Your task to perform on an android device: Search for vegetarian restaurants on Maps Image 0: 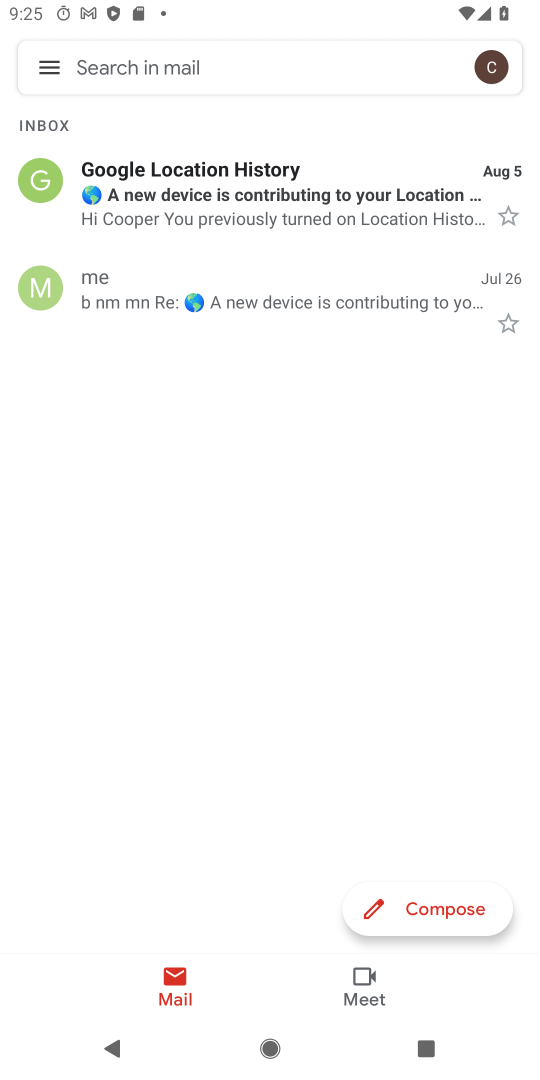
Step 0: press home button
Your task to perform on an android device: Search for vegetarian restaurants on Maps Image 1: 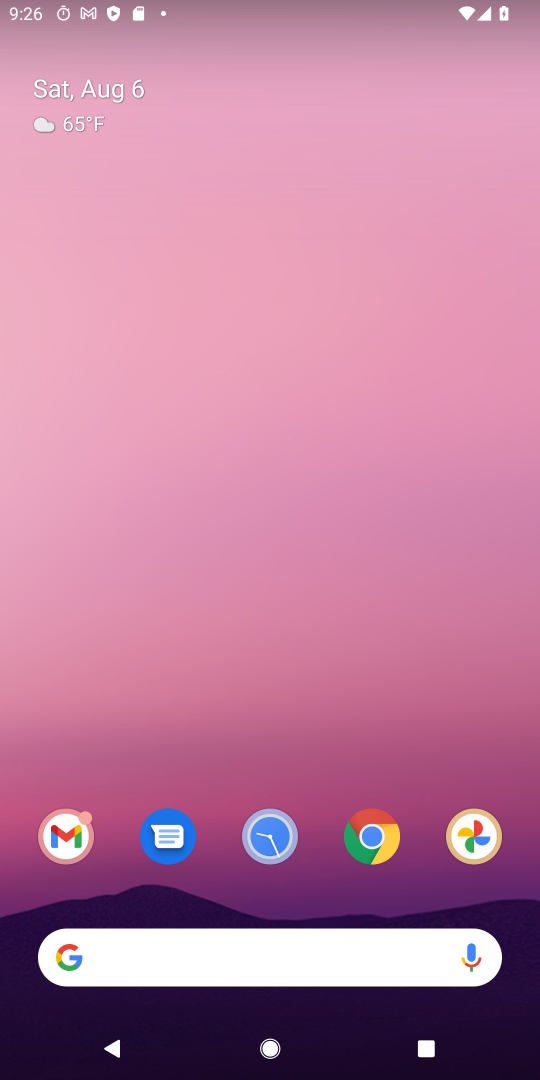
Step 1: drag from (437, 831) to (278, 22)
Your task to perform on an android device: Search for vegetarian restaurants on Maps Image 2: 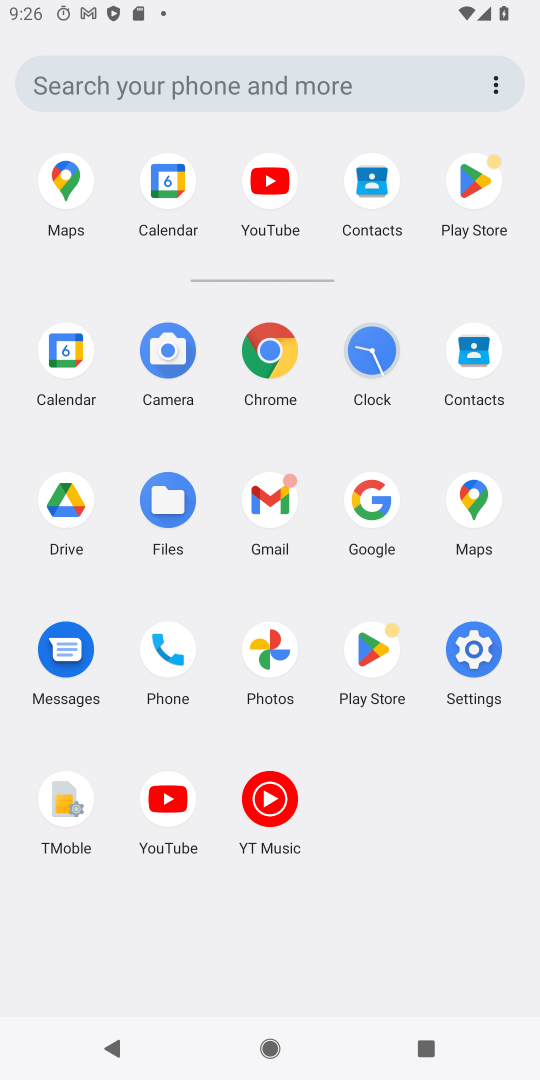
Step 2: click (476, 500)
Your task to perform on an android device: Search for vegetarian restaurants on Maps Image 3: 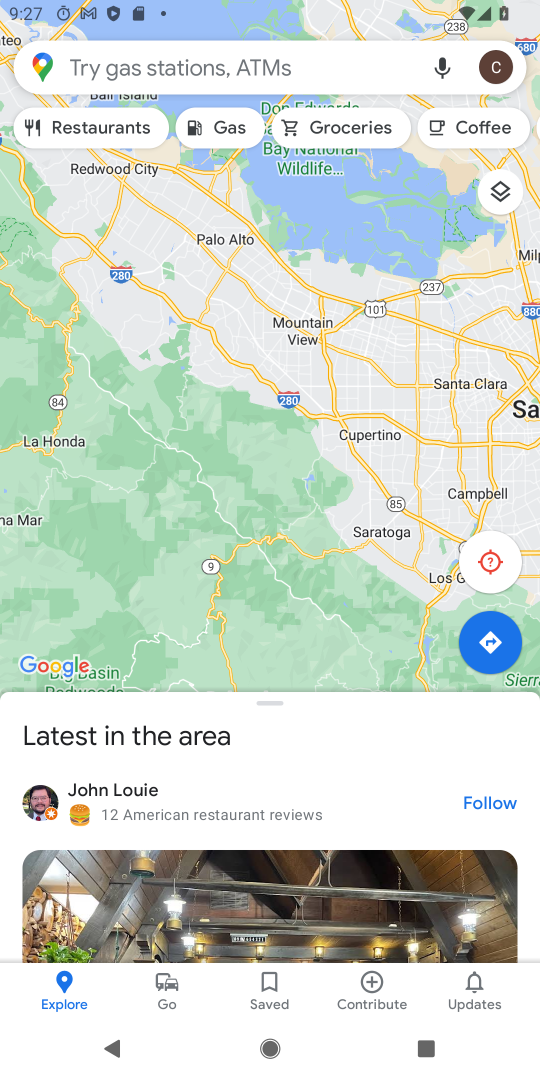
Step 3: click (203, 66)
Your task to perform on an android device: Search for vegetarian restaurants on Maps Image 4: 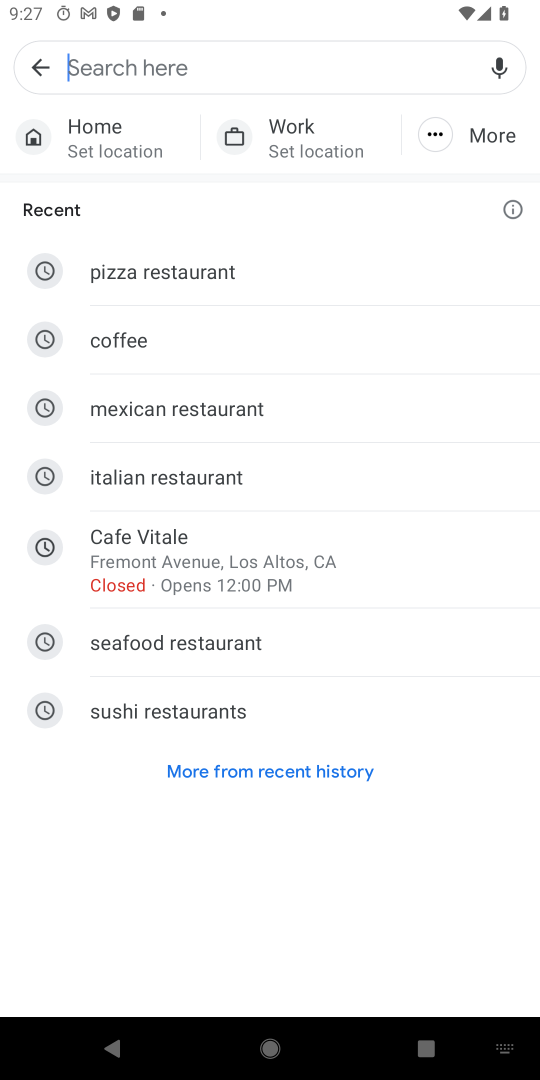
Step 4: type "vegetarian restaurants"
Your task to perform on an android device: Search for vegetarian restaurants on Maps Image 5: 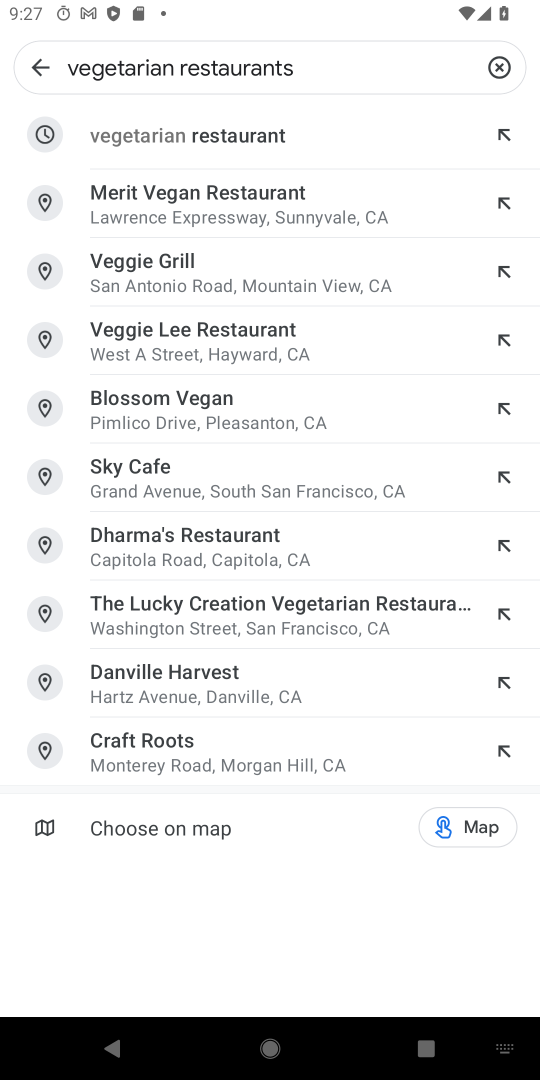
Step 5: click (224, 128)
Your task to perform on an android device: Search for vegetarian restaurants on Maps Image 6: 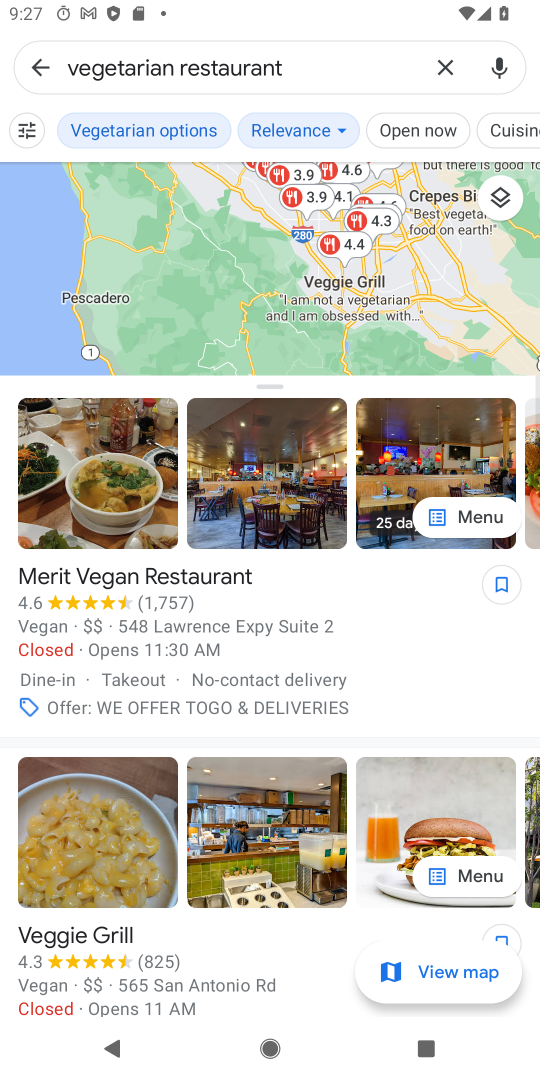
Step 6: task complete